Your task to perform on an android device: uninstall "DoorDash - Food Delivery" Image 0: 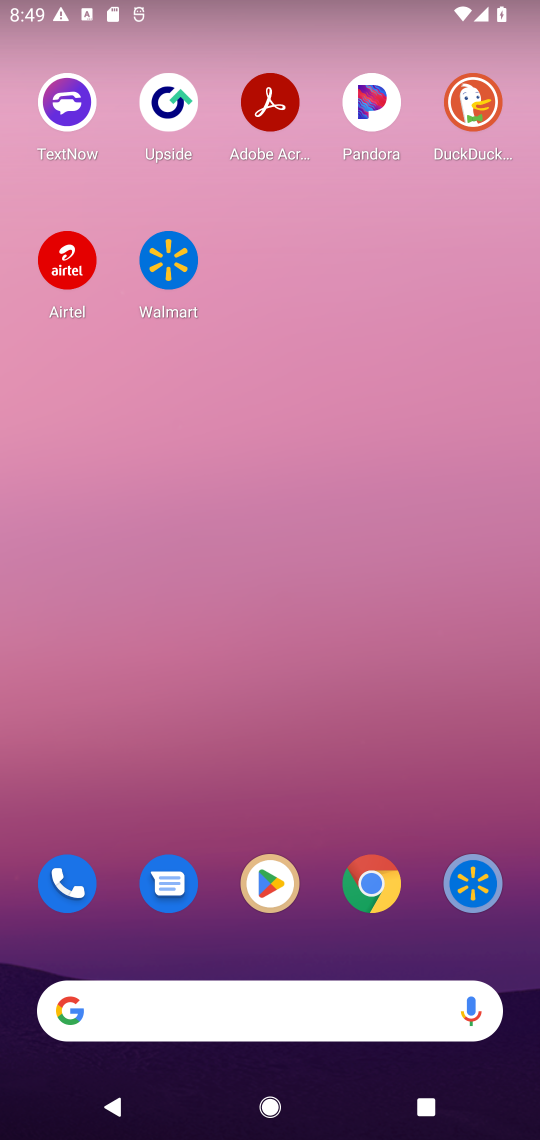
Step 0: drag from (309, 834) to (299, 211)
Your task to perform on an android device: uninstall "DoorDash - Food Delivery" Image 1: 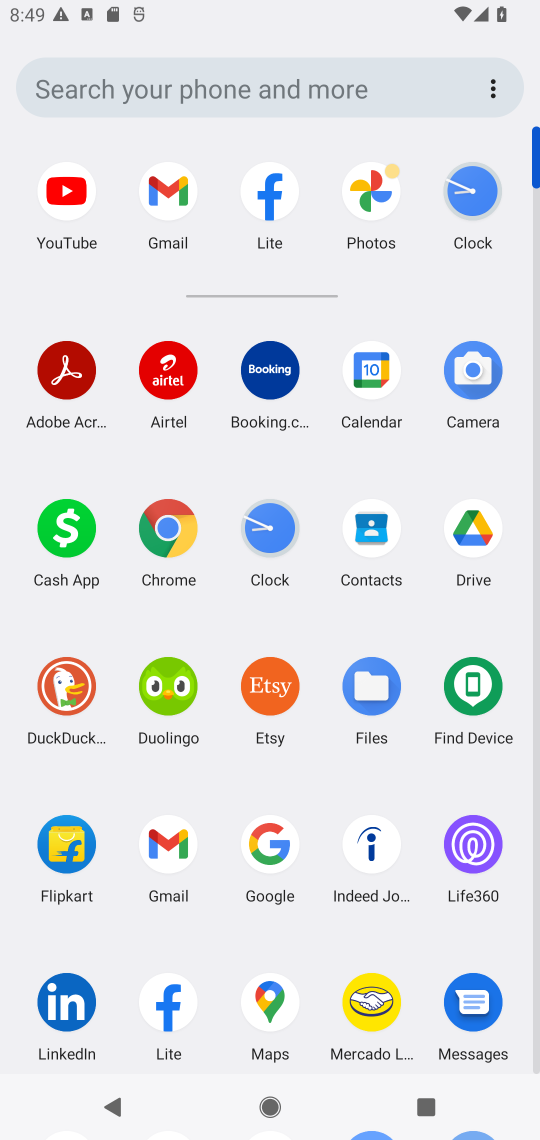
Step 1: drag from (212, 794) to (212, 427)
Your task to perform on an android device: uninstall "DoorDash - Food Delivery" Image 2: 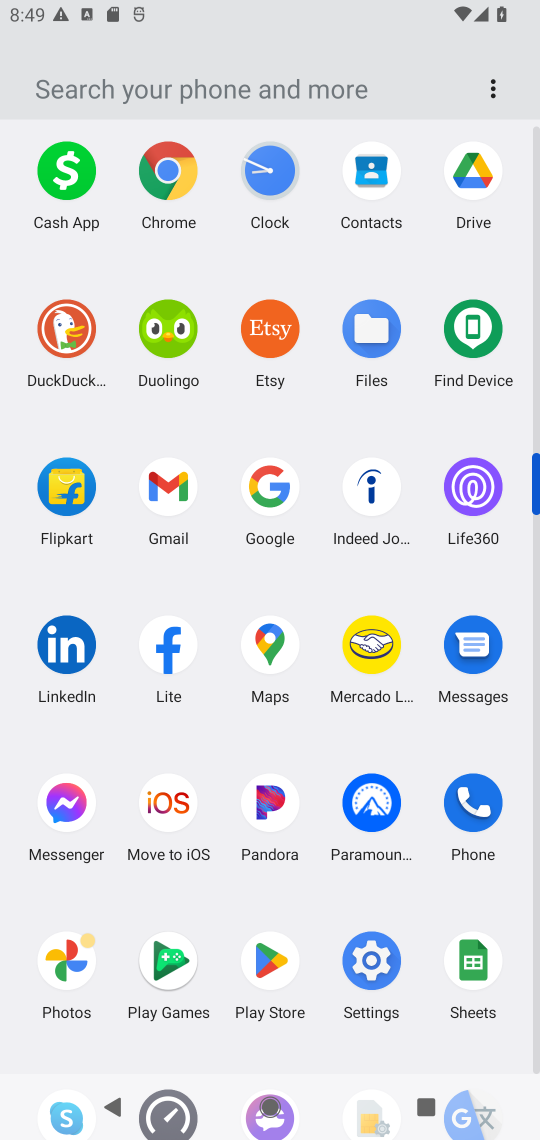
Step 2: click (265, 964)
Your task to perform on an android device: uninstall "DoorDash - Food Delivery" Image 3: 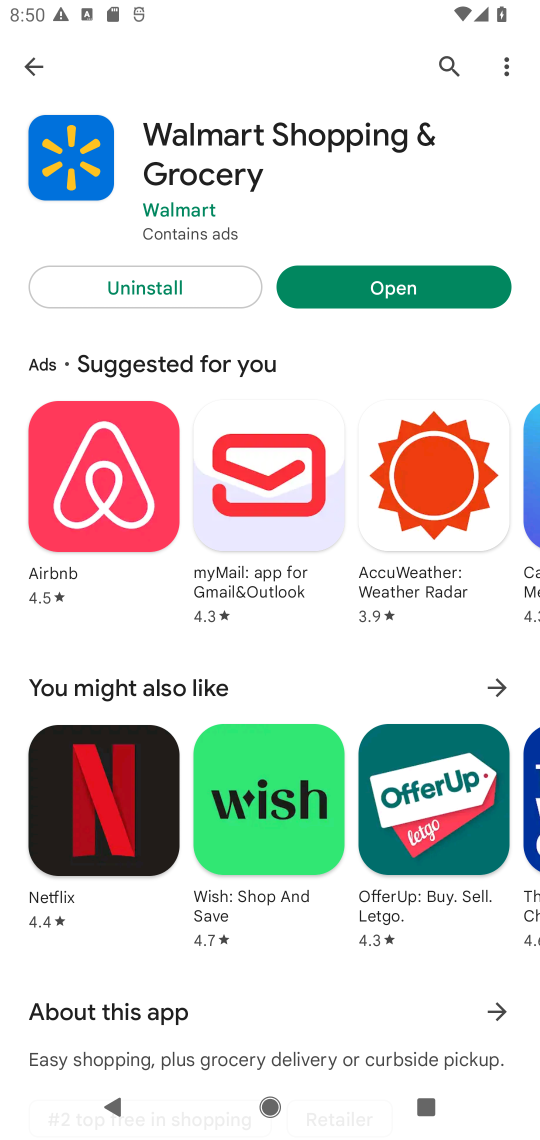
Step 3: click (447, 59)
Your task to perform on an android device: uninstall "DoorDash - Food Delivery" Image 4: 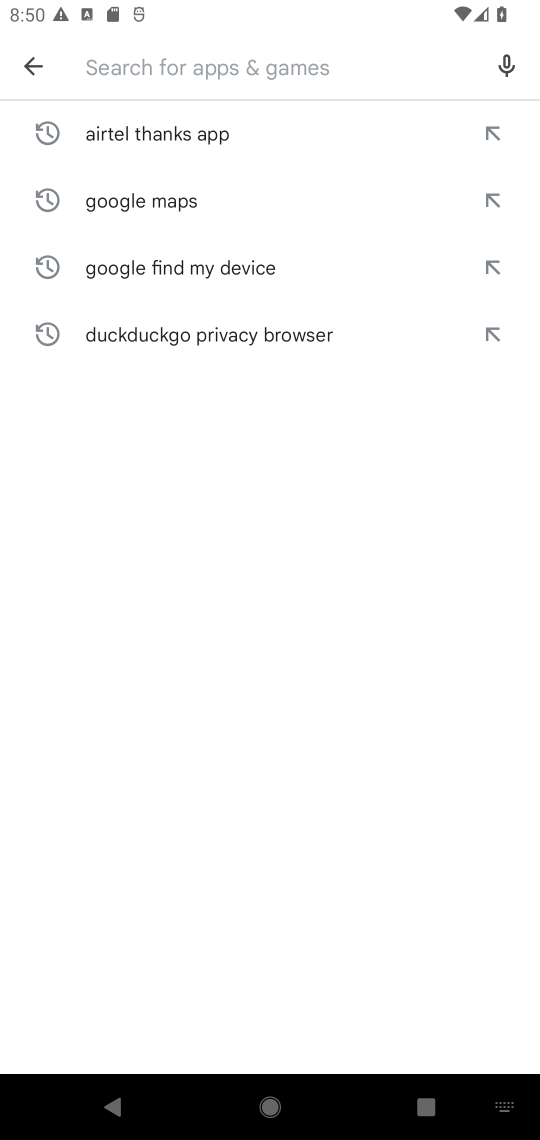
Step 4: type ""DoorDash - Food Delivery"
Your task to perform on an android device: uninstall "DoorDash - Food Delivery" Image 5: 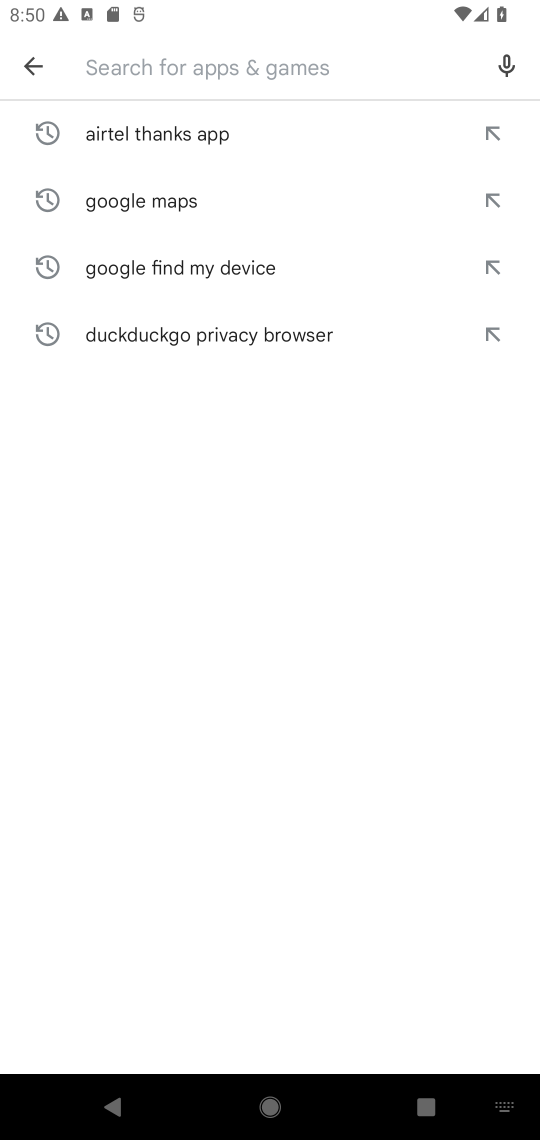
Step 5: press home button
Your task to perform on an android device: uninstall "DoorDash - Food Delivery" Image 6: 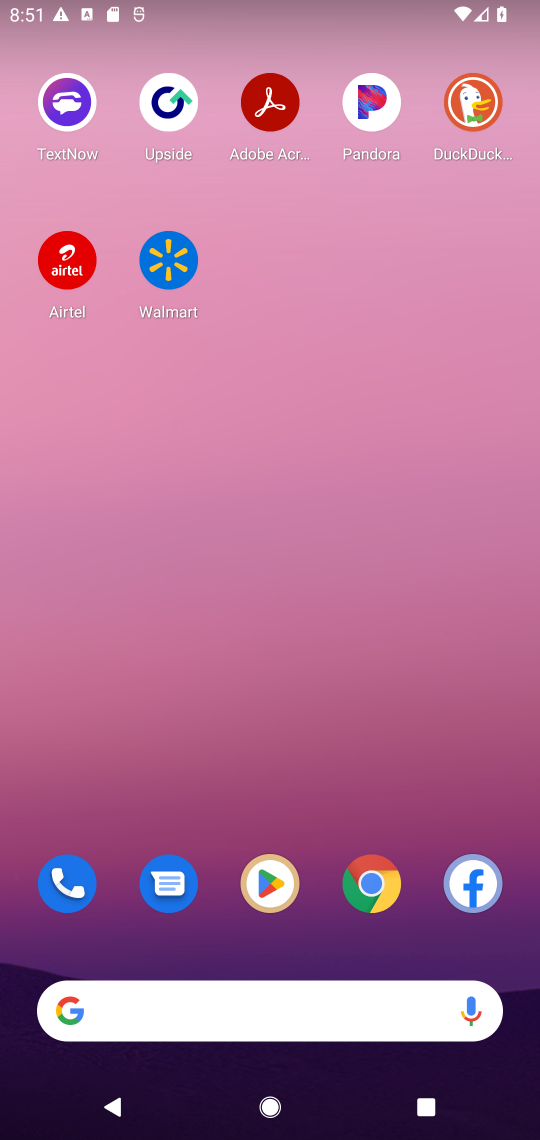
Step 6: click (275, 890)
Your task to perform on an android device: uninstall "DoorDash - Food Delivery" Image 7: 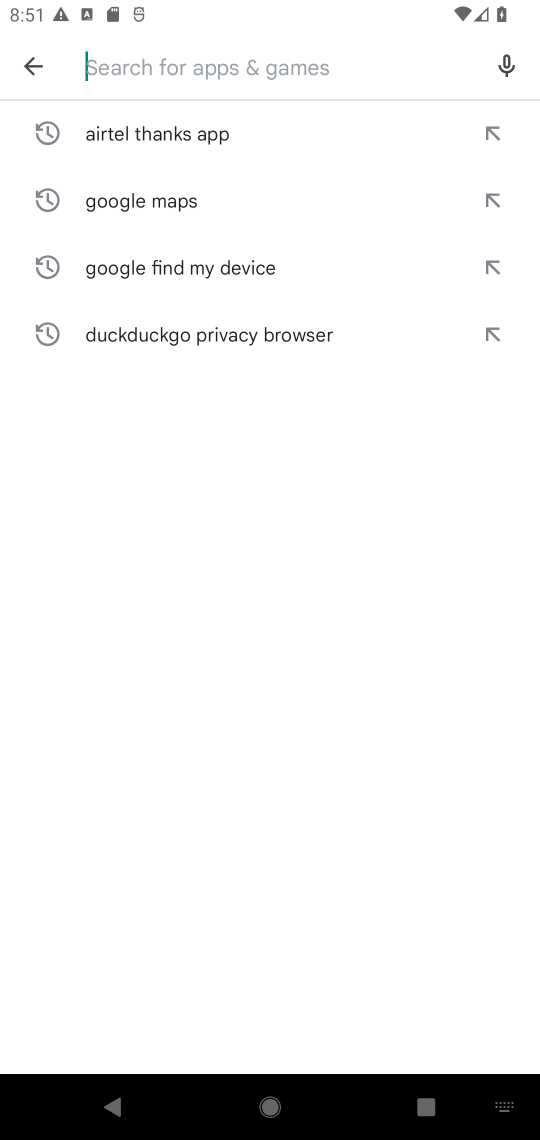
Step 7: type "DoorDash - Food Delivery"
Your task to perform on an android device: uninstall "DoorDash - Food Delivery" Image 8: 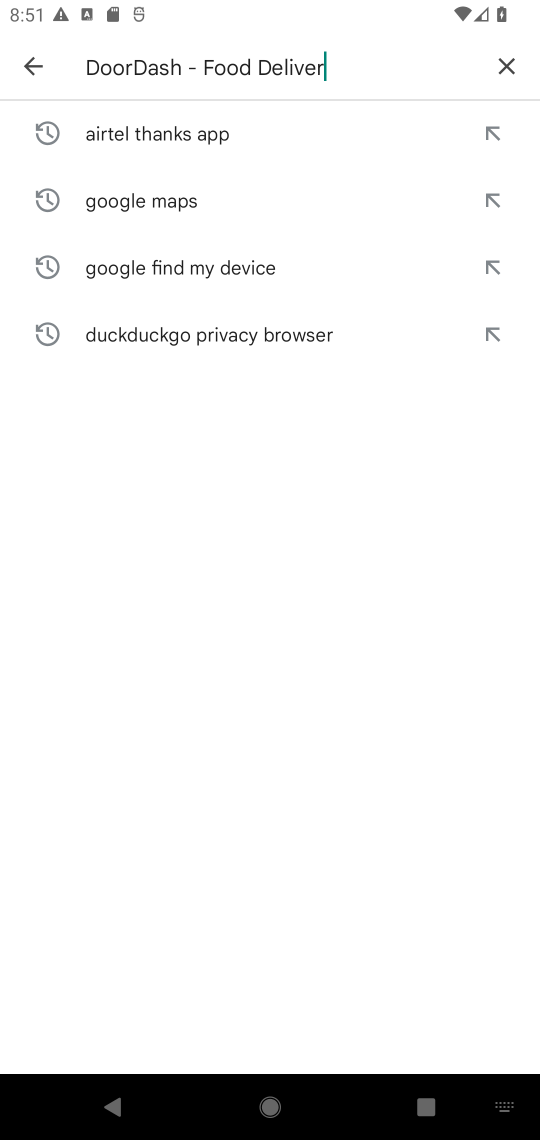
Step 8: type ""
Your task to perform on an android device: uninstall "DoorDash - Food Delivery" Image 9: 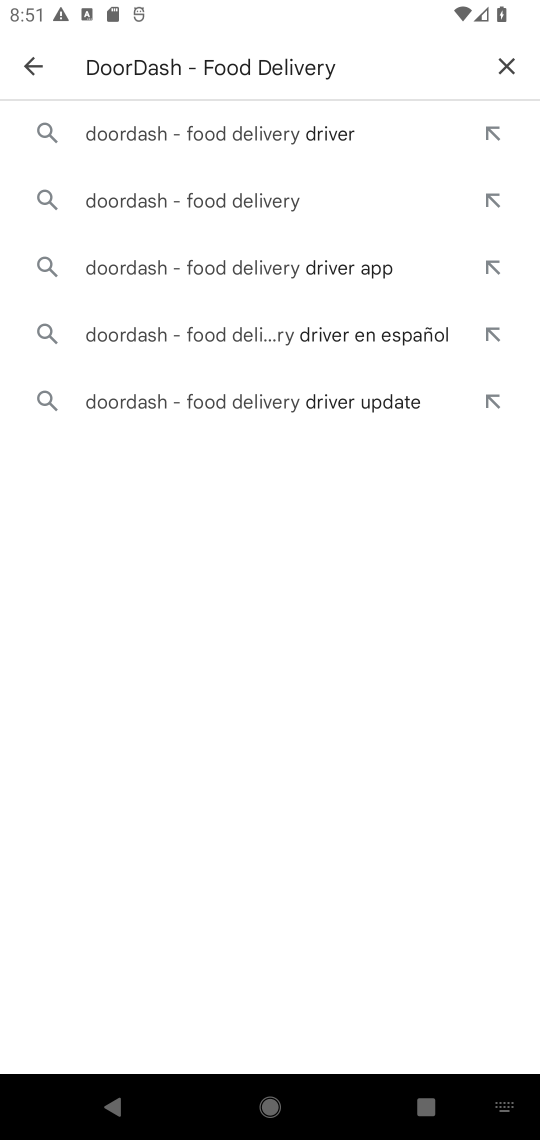
Step 9: click (292, 127)
Your task to perform on an android device: uninstall "DoorDash - Food Delivery" Image 10: 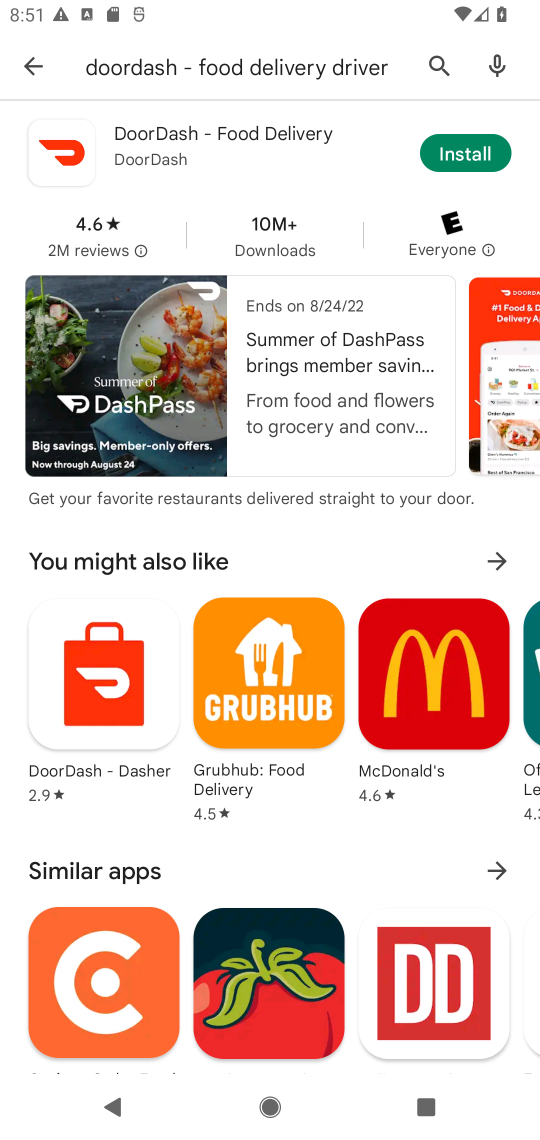
Step 10: task complete